Your task to perform on an android device: open wifi settings Image 0: 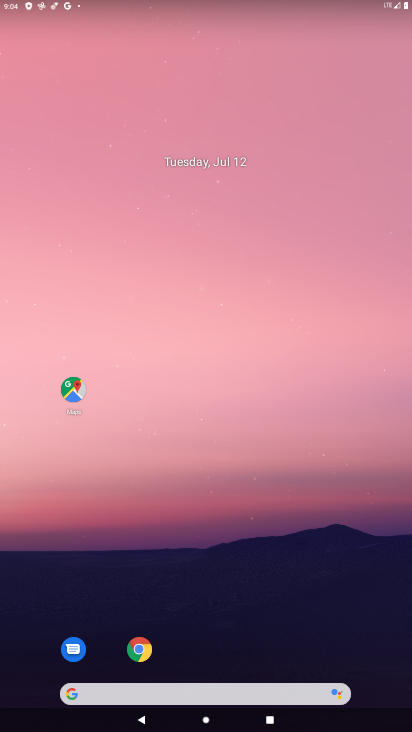
Step 0: drag from (252, 630) to (304, 32)
Your task to perform on an android device: open wifi settings Image 1: 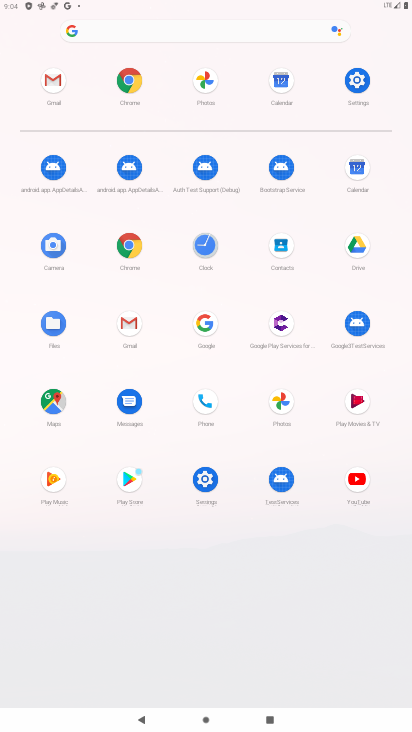
Step 1: click (351, 87)
Your task to perform on an android device: open wifi settings Image 2: 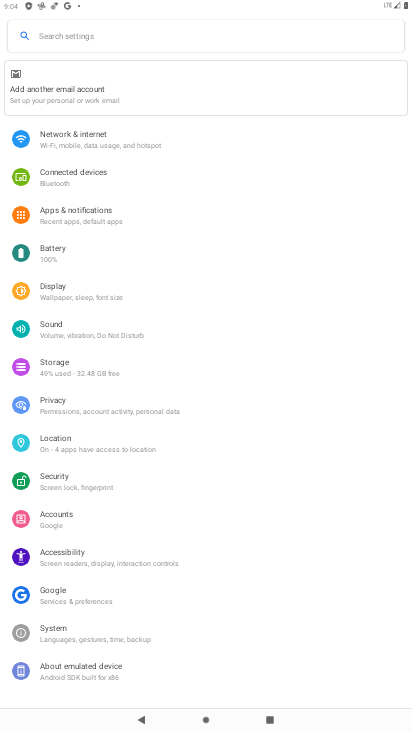
Step 2: click (104, 129)
Your task to perform on an android device: open wifi settings Image 3: 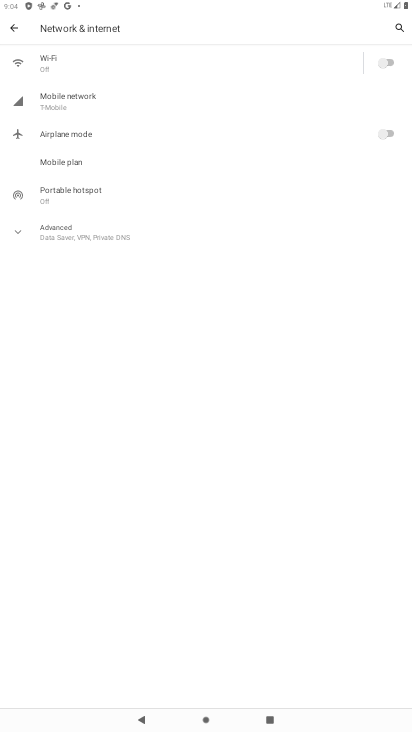
Step 3: click (141, 66)
Your task to perform on an android device: open wifi settings Image 4: 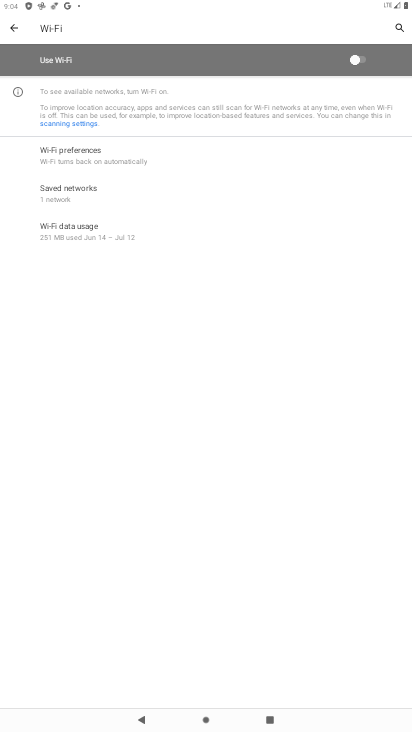
Step 4: task complete